Your task to perform on an android device: Go to wifi settings Image 0: 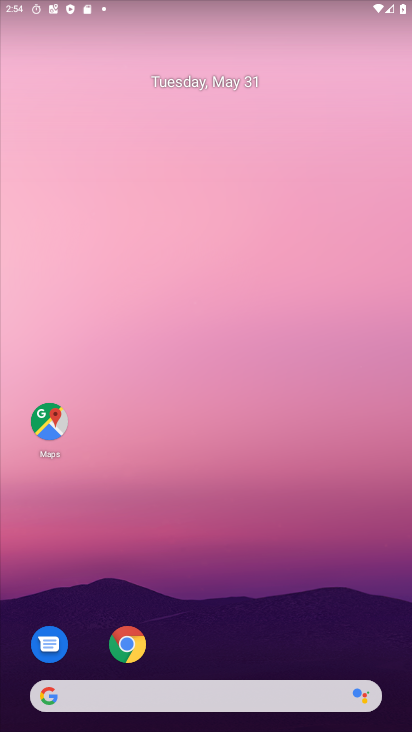
Step 0: drag from (378, 681) to (335, 136)
Your task to perform on an android device: Go to wifi settings Image 1: 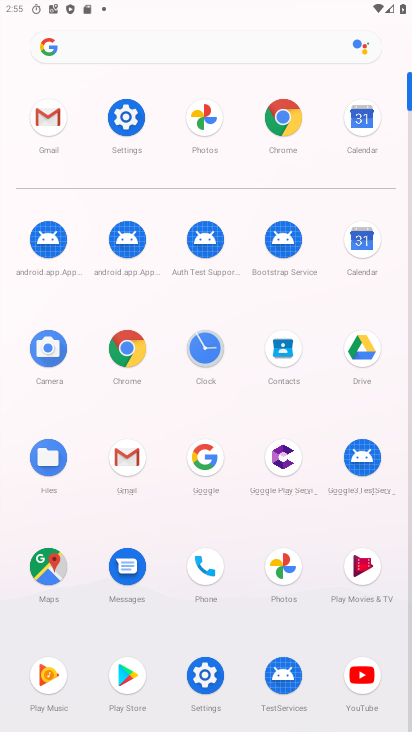
Step 1: click (121, 121)
Your task to perform on an android device: Go to wifi settings Image 2: 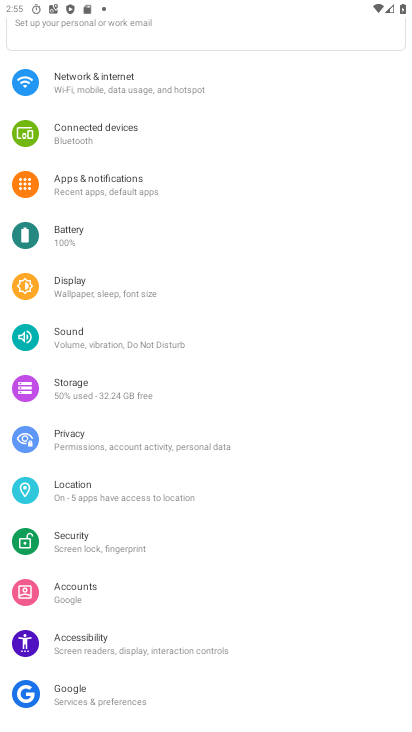
Step 2: click (97, 91)
Your task to perform on an android device: Go to wifi settings Image 3: 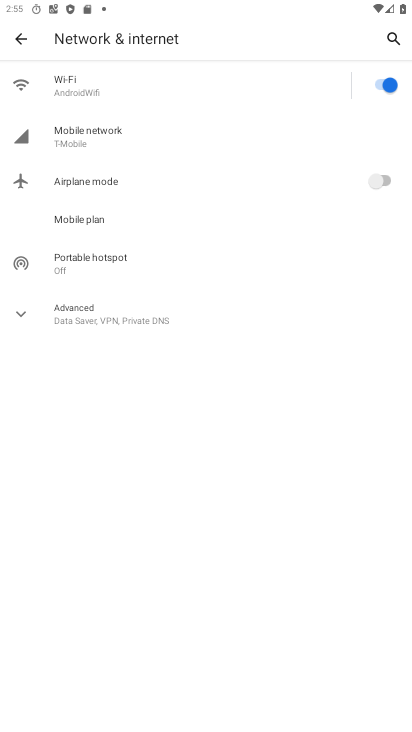
Step 3: click (204, 90)
Your task to perform on an android device: Go to wifi settings Image 4: 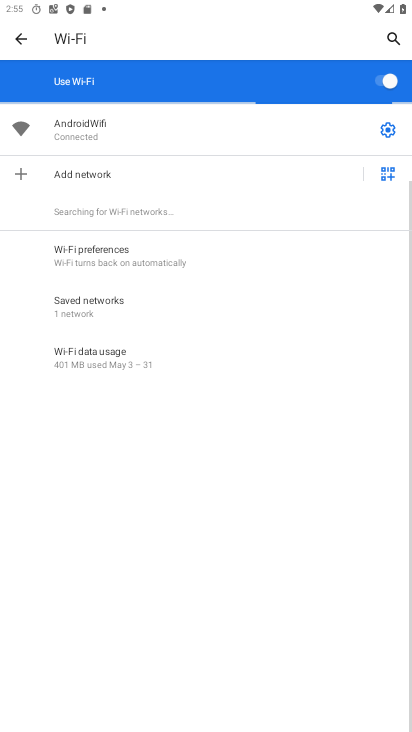
Step 4: click (388, 124)
Your task to perform on an android device: Go to wifi settings Image 5: 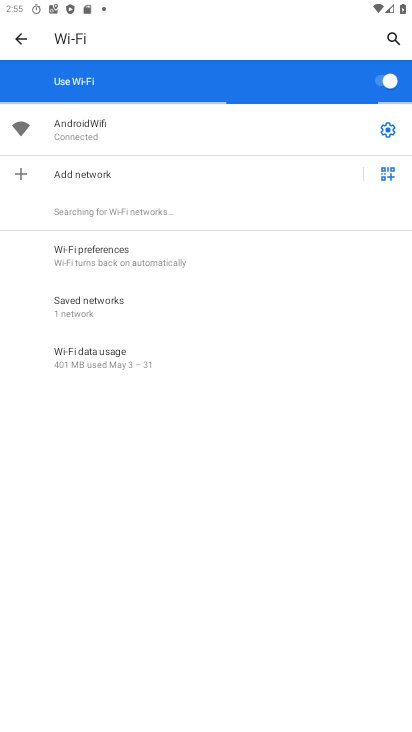
Step 5: click (387, 128)
Your task to perform on an android device: Go to wifi settings Image 6: 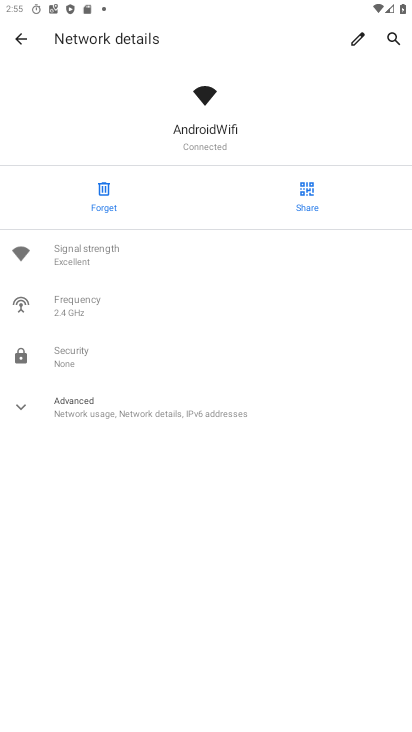
Step 6: task complete